Your task to perform on an android device: toggle show notifications on the lock screen Image 0: 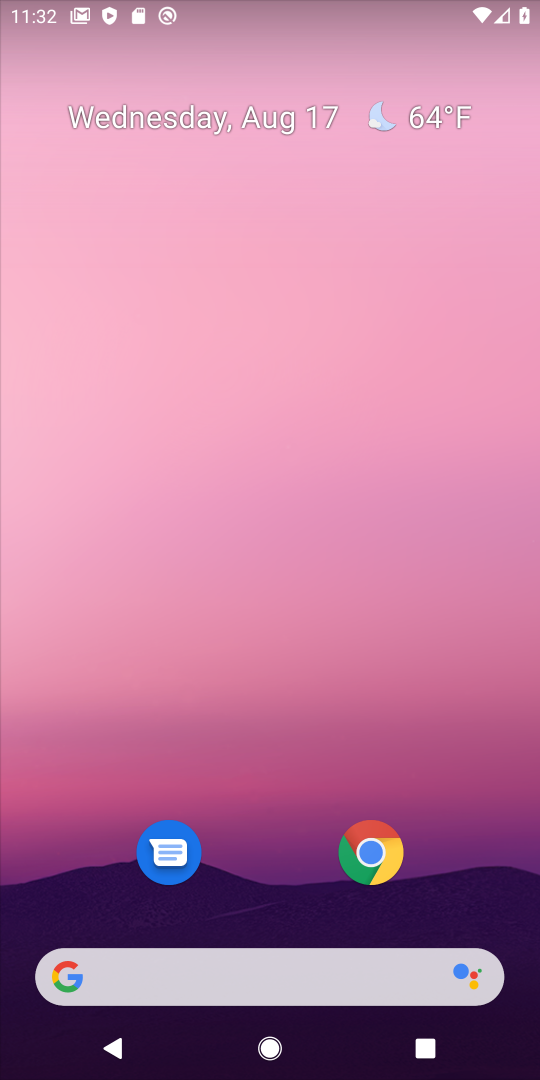
Step 0: drag from (143, 744) to (449, 14)
Your task to perform on an android device: toggle show notifications on the lock screen Image 1: 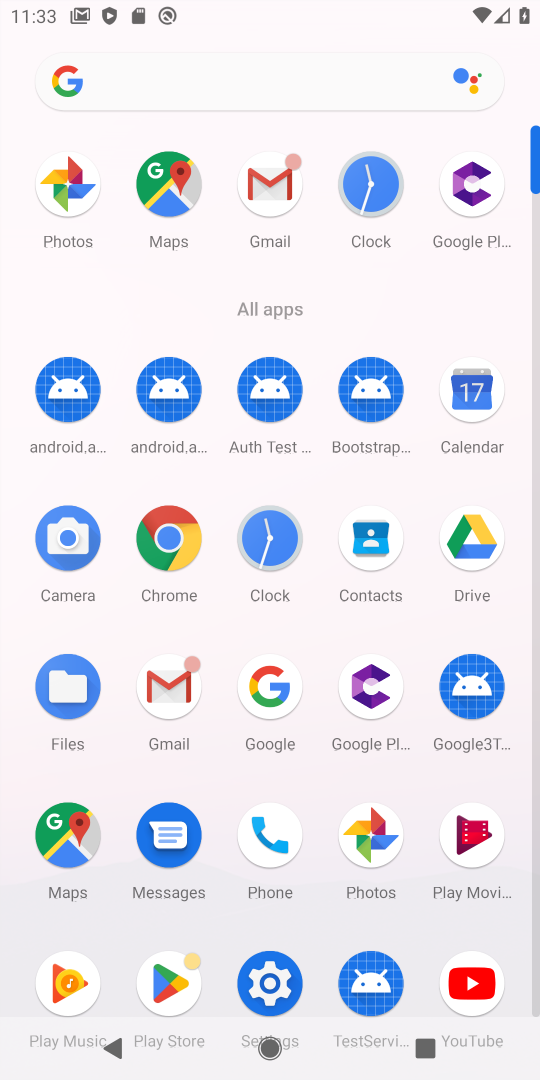
Step 1: task complete